Your task to perform on an android device: Search for sushi restaurants on Maps Image 0: 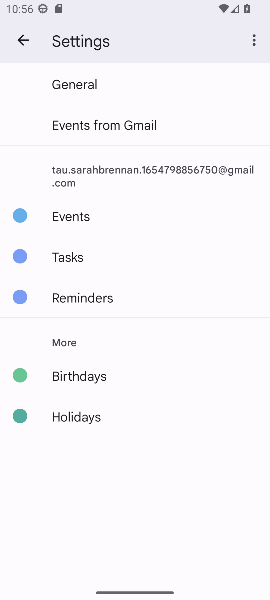
Step 0: press home button
Your task to perform on an android device: Search for sushi restaurants on Maps Image 1: 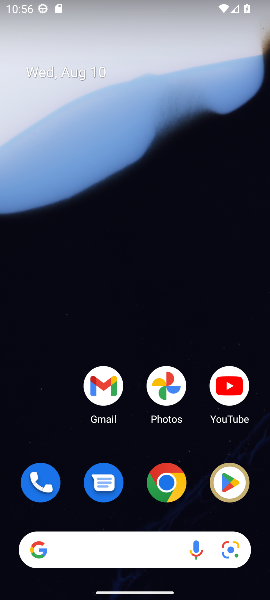
Step 1: drag from (137, 328) to (139, 52)
Your task to perform on an android device: Search for sushi restaurants on Maps Image 2: 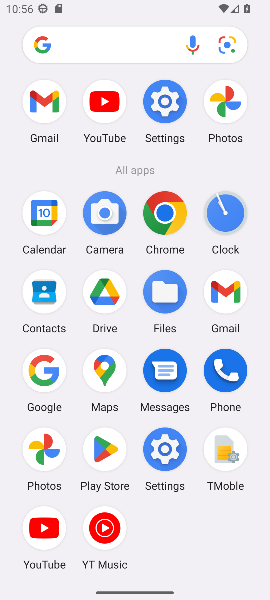
Step 2: click (101, 382)
Your task to perform on an android device: Search for sushi restaurants on Maps Image 3: 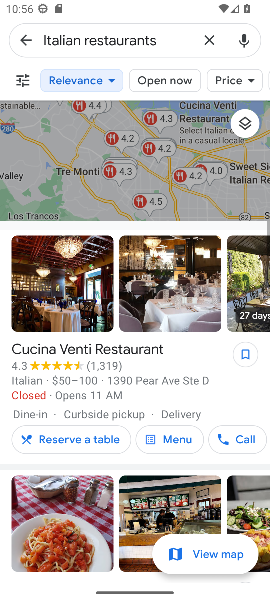
Step 3: click (212, 42)
Your task to perform on an android device: Search for sushi restaurants on Maps Image 4: 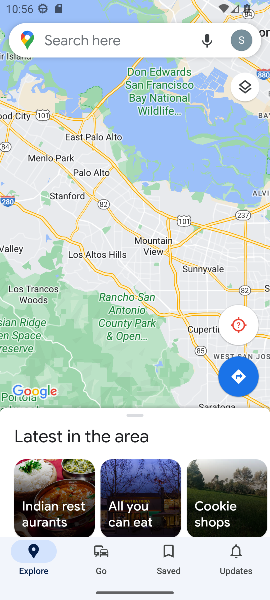
Step 4: click (40, 32)
Your task to perform on an android device: Search for sushi restaurants on Maps Image 5: 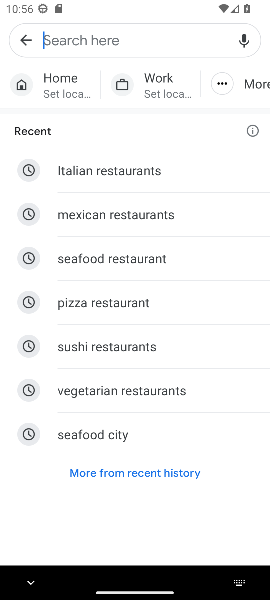
Step 5: type "sushi restaurants "
Your task to perform on an android device: Search for sushi restaurants on Maps Image 6: 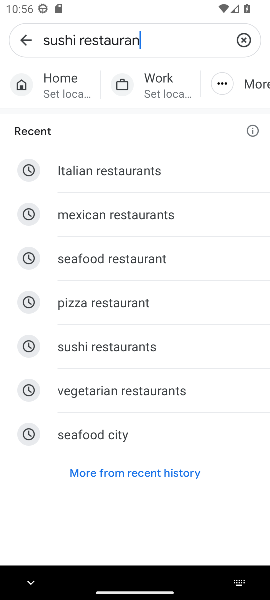
Step 6: type ""
Your task to perform on an android device: Search for sushi restaurants on Maps Image 7: 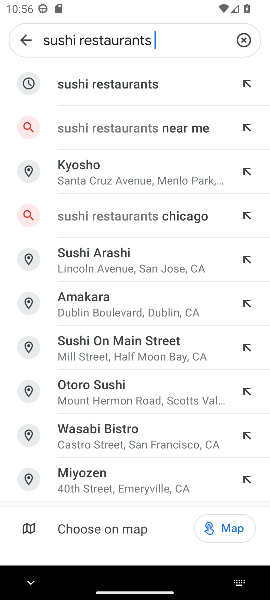
Step 7: press enter
Your task to perform on an android device: Search for sushi restaurants on Maps Image 8: 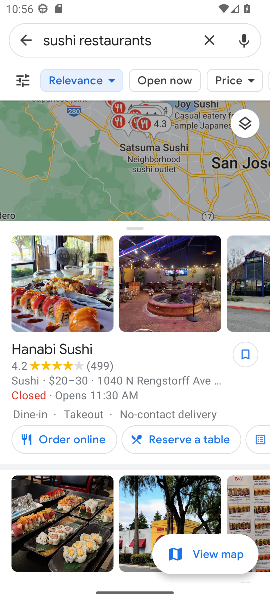
Step 8: task complete